Your task to perform on an android device: Open my contact list Image 0: 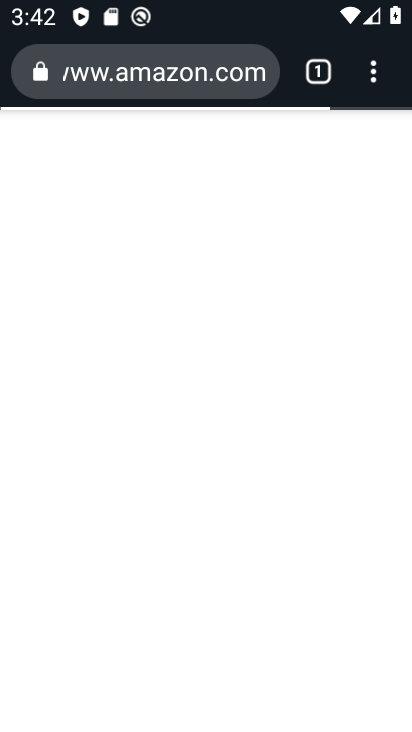
Step 0: press home button
Your task to perform on an android device: Open my contact list Image 1: 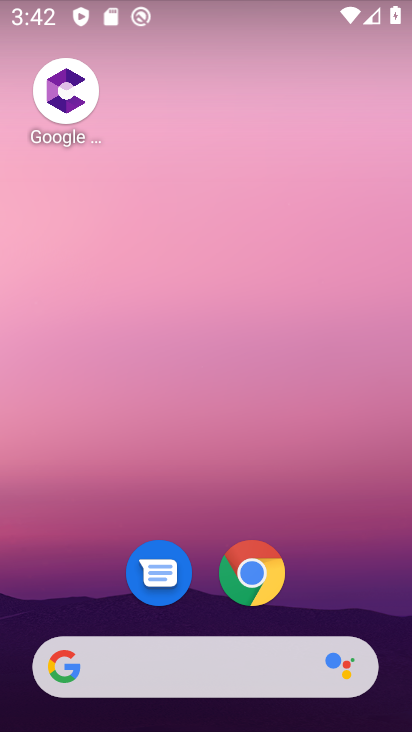
Step 1: drag from (220, 706) to (212, 300)
Your task to perform on an android device: Open my contact list Image 2: 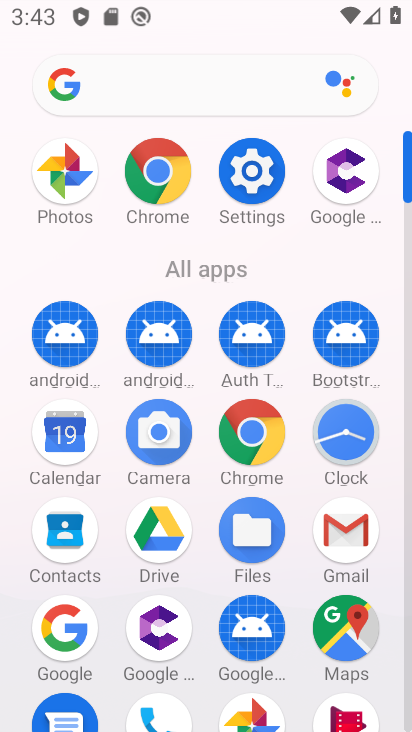
Step 2: click (151, 694)
Your task to perform on an android device: Open my contact list Image 3: 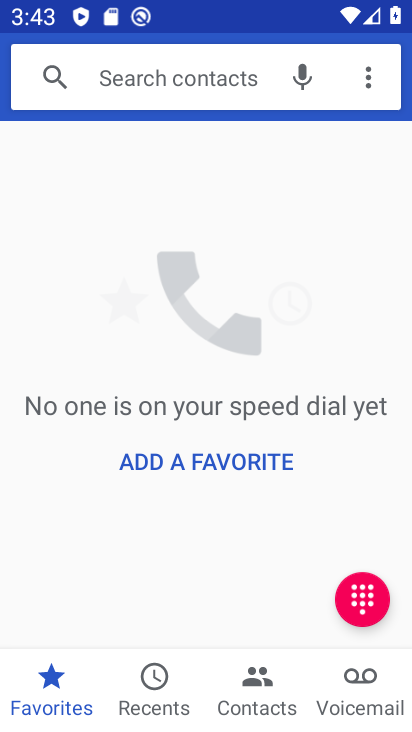
Step 3: click (258, 701)
Your task to perform on an android device: Open my contact list Image 4: 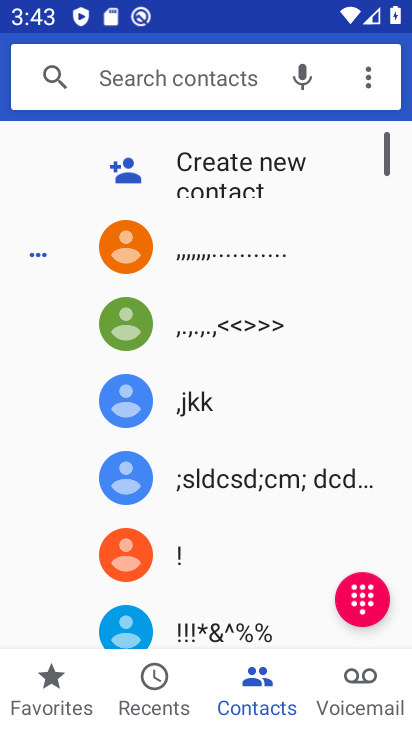
Step 4: task complete